Your task to perform on an android device: change notification settings in the gmail app Image 0: 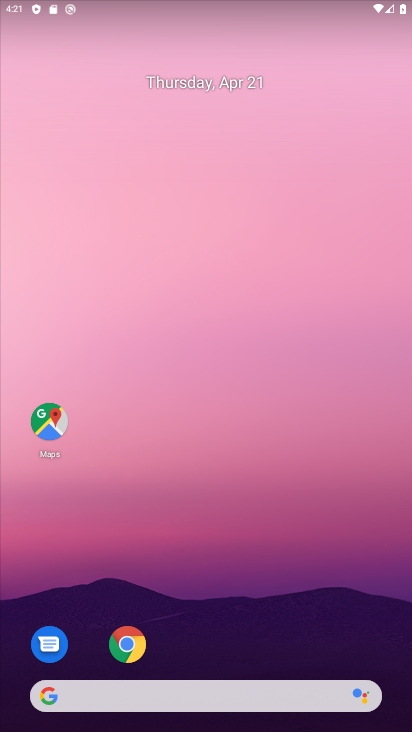
Step 0: drag from (224, 641) to (224, 155)
Your task to perform on an android device: change notification settings in the gmail app Image 1: 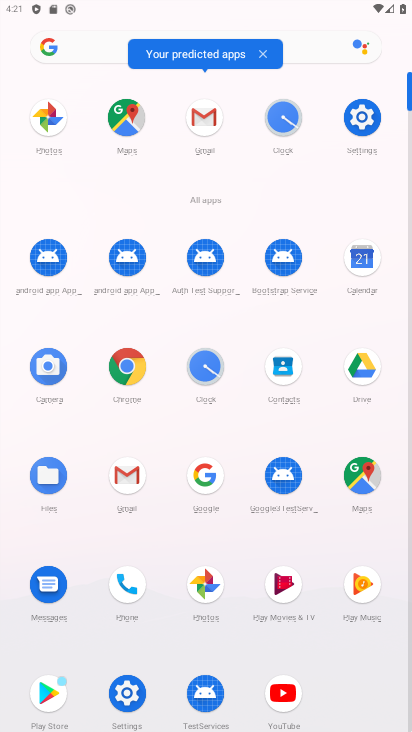
Step 1: click (126, 473)
Your task to perform on an android device: change notification settings in the gmail app Image 2: 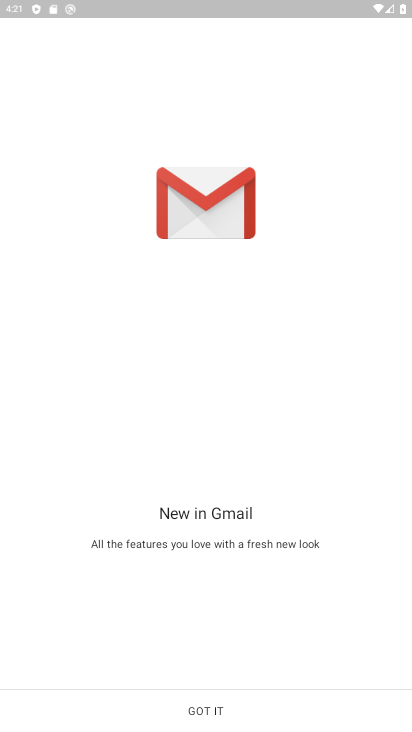
Step 2: click (211, 704)
Your task to perform on an android device: change notification settings in the gmail app Image 3: 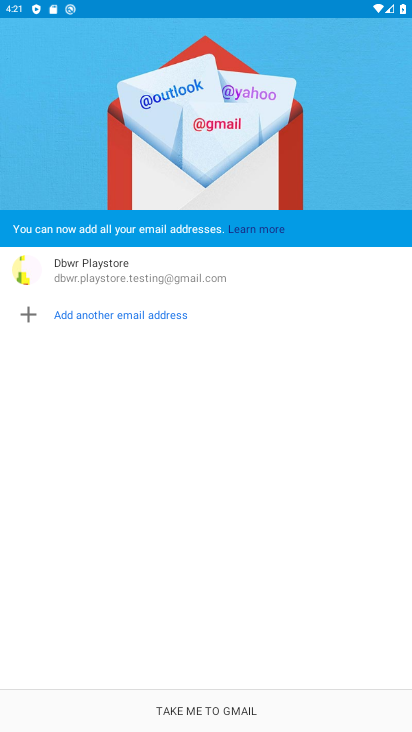
Step 3: click (211, 704)
Your task to perform on an android device: change notification settings in the gmail app Image 4: 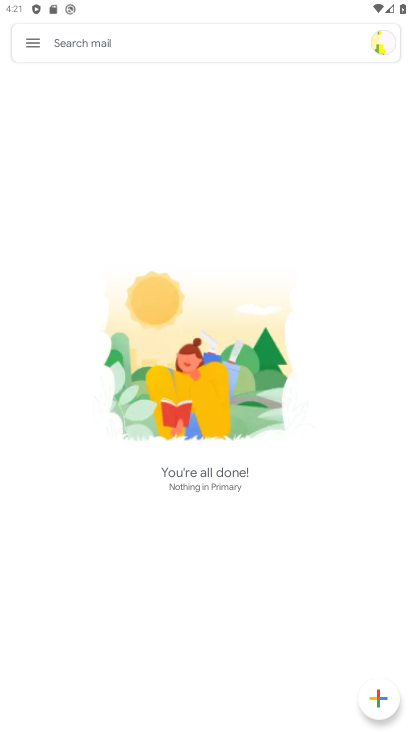
Step 4: click (31, 42)
Your task to perform on an android device: change notification settings in the gmail app Image 5: 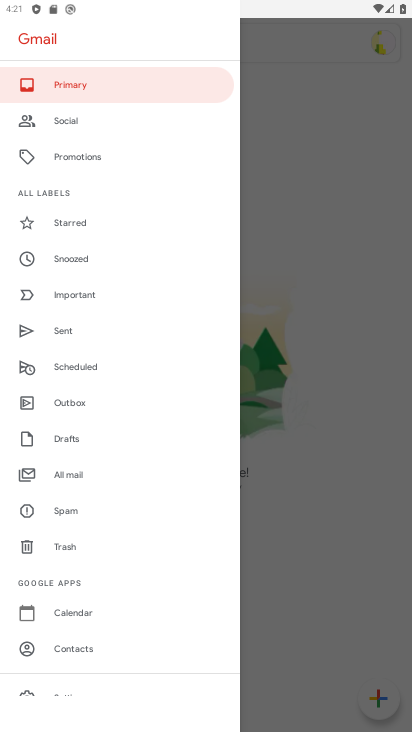
Step 5: drag from (92, 641) to (96, 296)
Your task to perform on an android device: change notification settings in the gmail app Image 6: 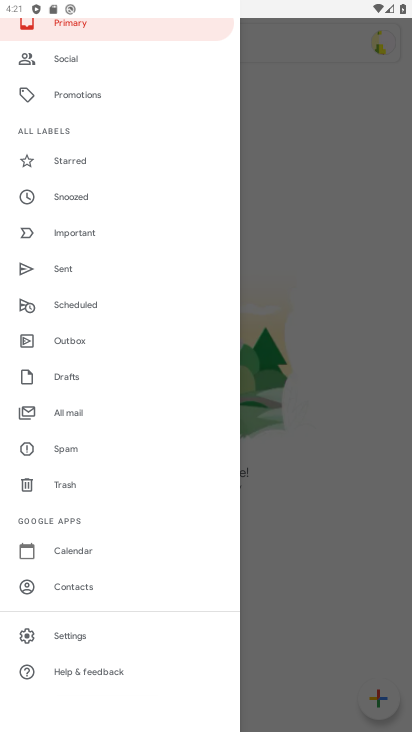
Step 6: click (69, 633)
Your task to perform on an android device: change notification settings in the gmail app Image 7: 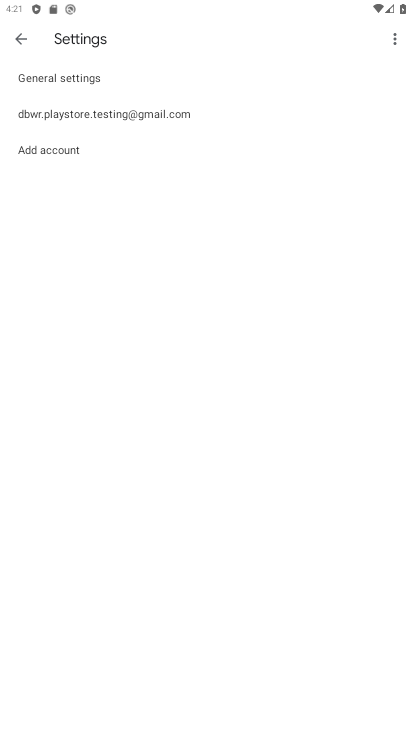
Step 7: click (161, 107)
Your task to perform on an android device: change notification settings in the gmail app Image 8: 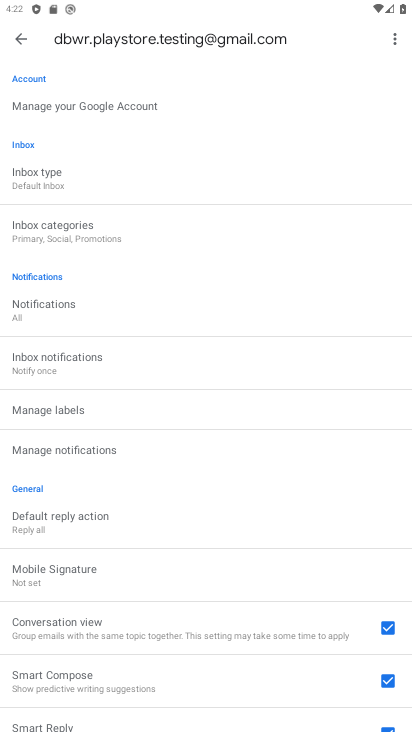
Step 8: click (61, 297)
Your task to perform on an android device: change notification settings in the gmail app Image 9: 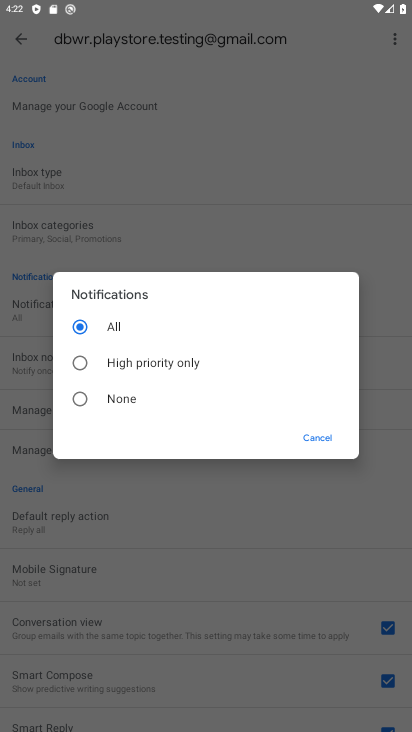
Step 9: click (82, 360)
Your task to perform on an android device: change notification settings in the gmail app Image 10: 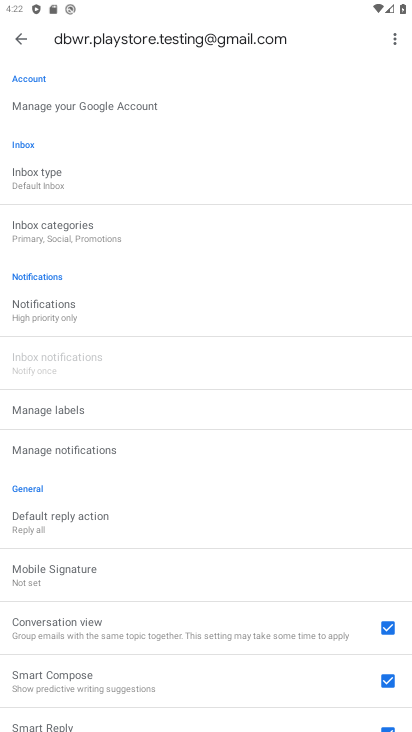
Step 10: task complete